Your task to perform on an android device: turn on data saver in the chrome app Image 0: 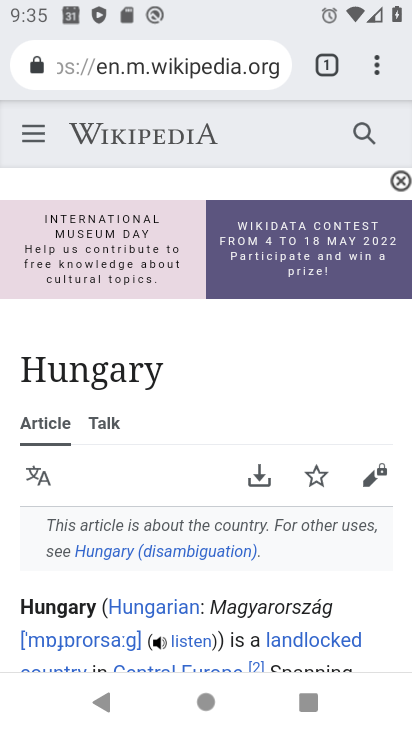
Step 0: click (382, 53)
Your task to perform on an android device: turn on data saver in the chrome app Image 1: 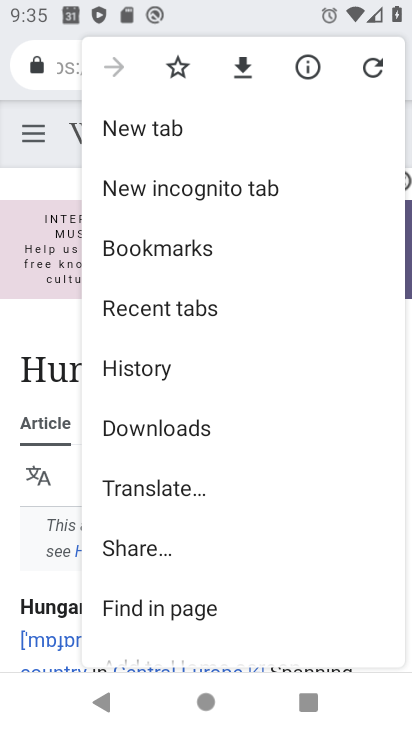
Step 1: drag from (245, 589) to (184, 274)
Your task to perform on an android device: turn on data saver in the chrome app Image 2: 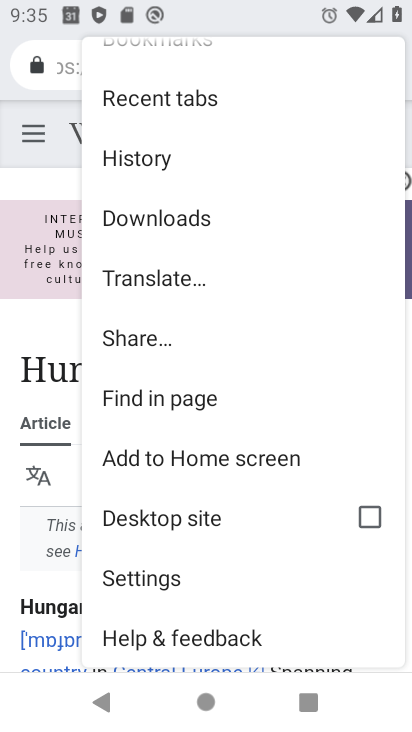
Step 2: click (207, 569)
Your task to perform on an android device: turn on data saver in the chrome app Image 3: 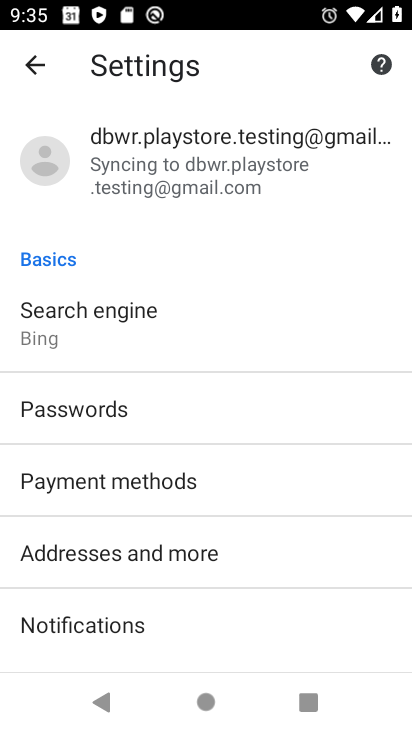
Step 3: drag from (164, 582) to (165, 88)
Your task to perform on an android device: turn on data saver in the chrome app Image 4: 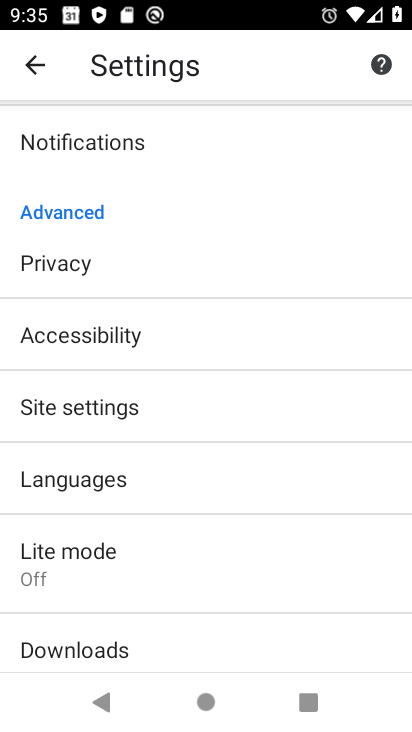
Step 4: drag from (177, 580) to (168, 228)
Your task to perform on an android device: turn on data saver in the chrome app Image 5: 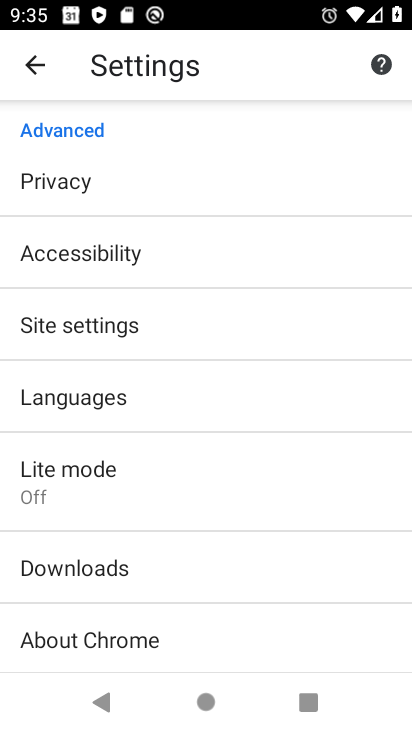
Step 5: click (191, 496)
Your task to perform on an android device: turn on data saver in the chrome app Image 6: 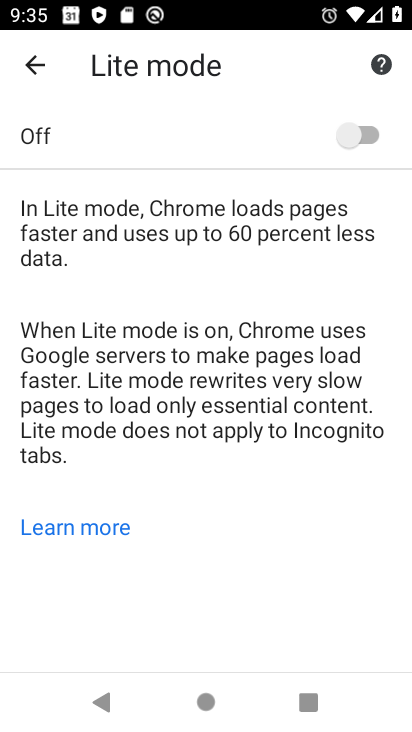
Step 6: click (333, 137)
Your task to perform on an android device: turn on data saver in the chrome app Image 7: 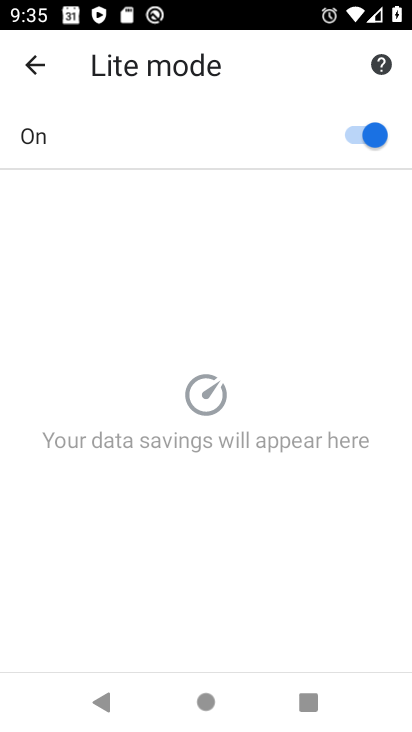
Step 7: task complete